Your task to perform on an android device: Open Youtube and go to the subscriptions tab Image 0: 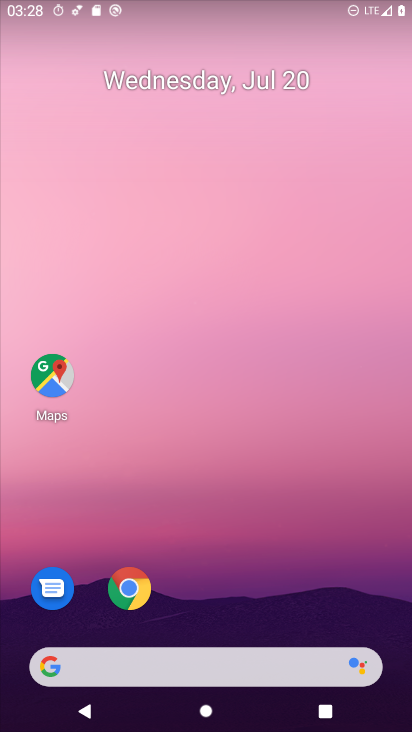
Step 0: drag from (202, 595) to (154, 137)
Your task to perform on an android device: Open Youtube and go to the subscriptions tab Image 1: 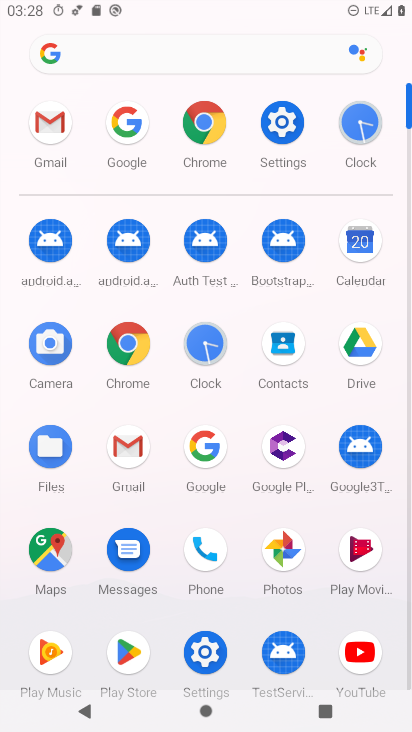
Step 1: click (349, 663)
Your task to perform on an android device: Open Youtube and go to the subscriptions tab Image 2: 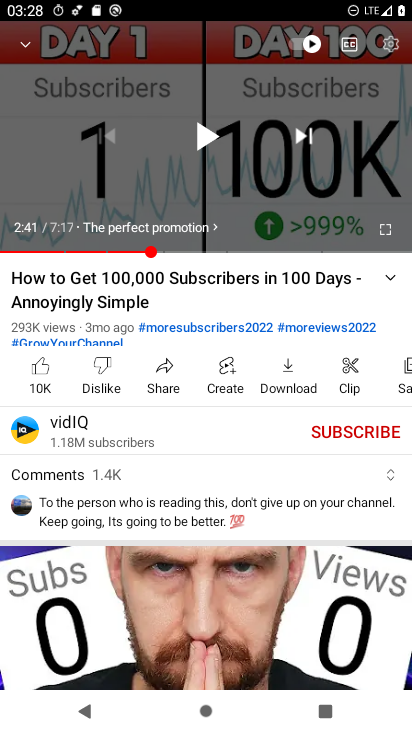
Step 2: click (31, 48)
Your task to perform on an android device: Open Youtube and go to the subscriptions tab Image 3: 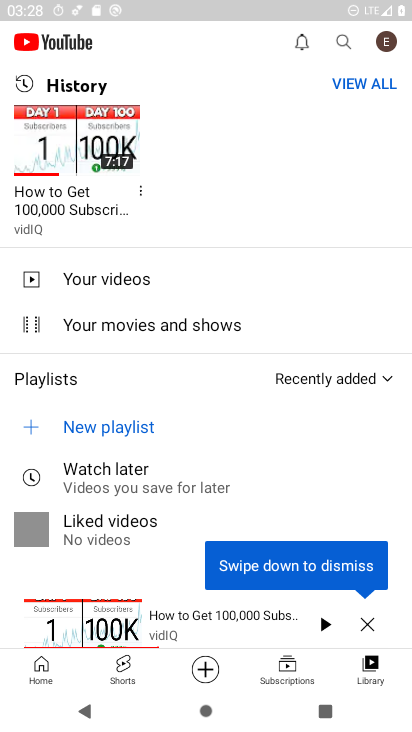
Step 3: click (284, 672)
Your task to perform on an android device: Open Youtube and go to the subscriptions tab Image 4: 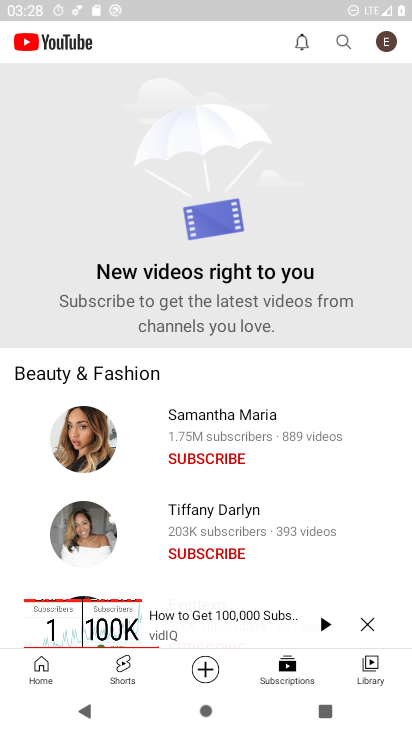
Step 4: task complete